Your task to perform on an android device: When is my next meeting? Image 0: 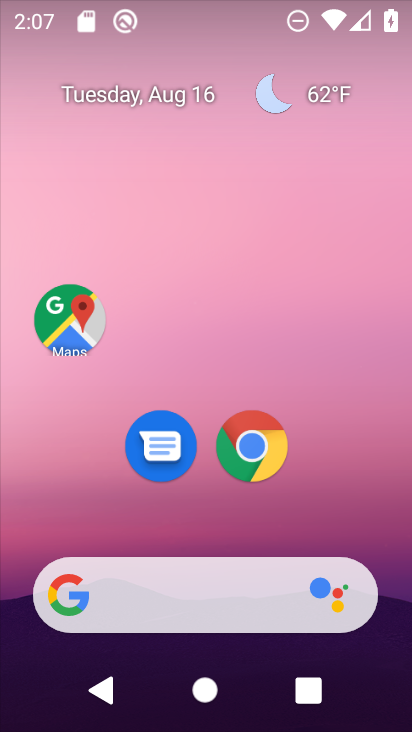
Step 0: press home button
Your task to perform on an android device: When is my next meeting? Image 1: 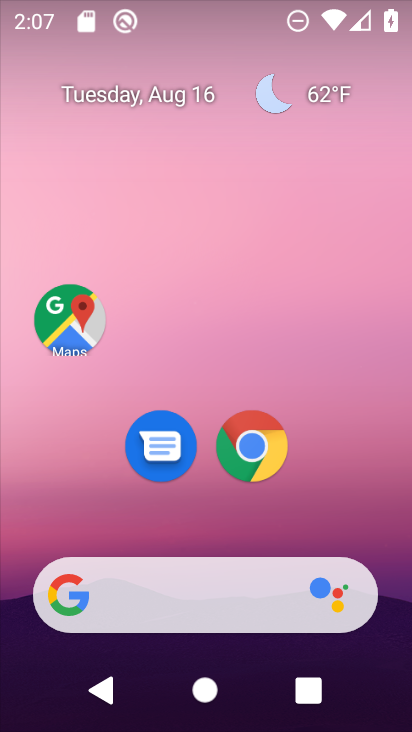
Step 1: drag from (209, 531) to (227, 74)
Your task to perform on an android device: When is my next meeting? Image 2: 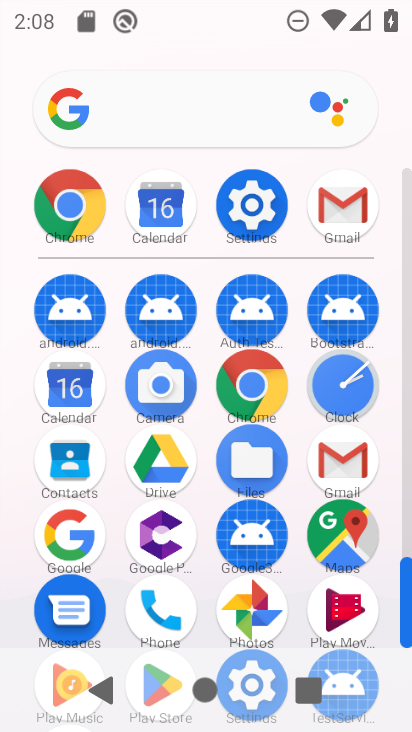
Step 2: click (67, 391)
Your task to perform on an android device: When is my next meeting? Image 3: 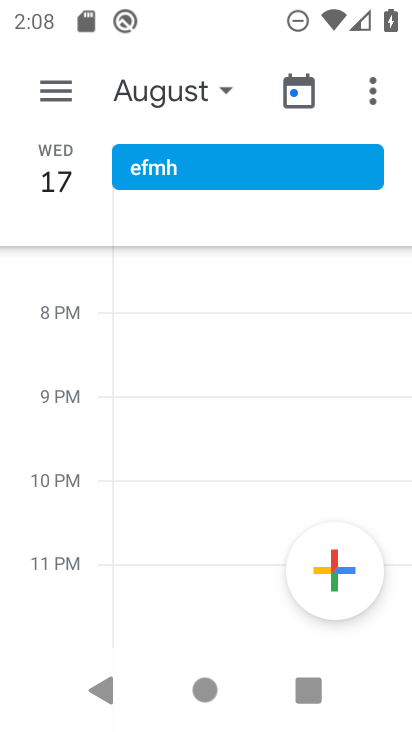
Step 3: click (79, 151)
Your task to perform on an android device: When is my next meeting? Image 4: 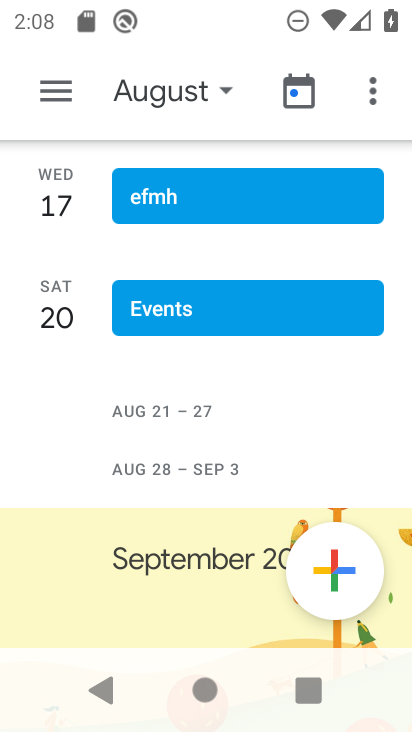
Step 4: task complete